Your task to perform on an android device: Open Google Maps and go to "Timeline" Image 0: 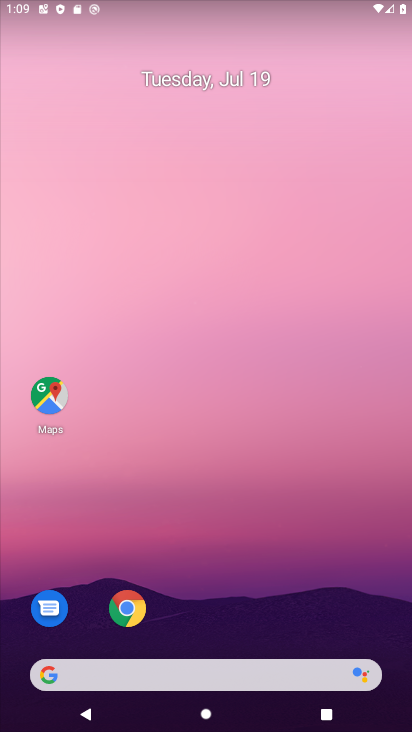
Step 0: click (44, 392)
Your task to perform on an android device: Open Google Maps and go to "Timeline" Image 1: 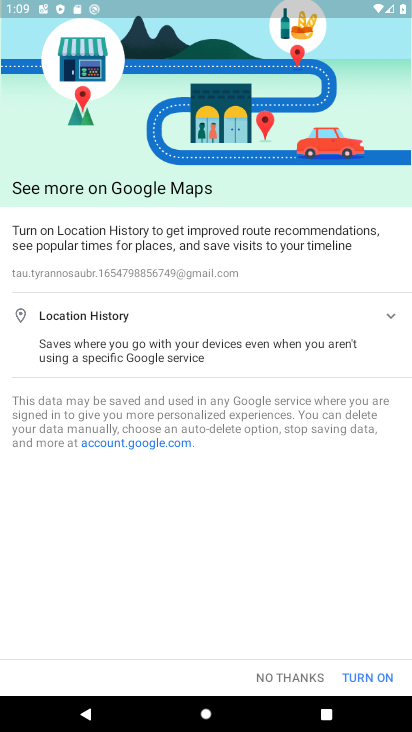
Step 1: click (293, 675)
Your task to perform on an android device: Open Google Maps and go to "Timeline" Image 2: 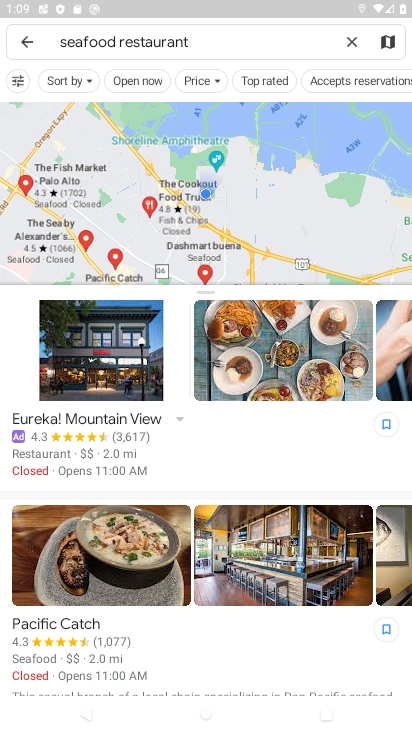
Step 2: press back button
Your task to perform on an android device: Open Google Maps and go to "Timeline" Image 3: 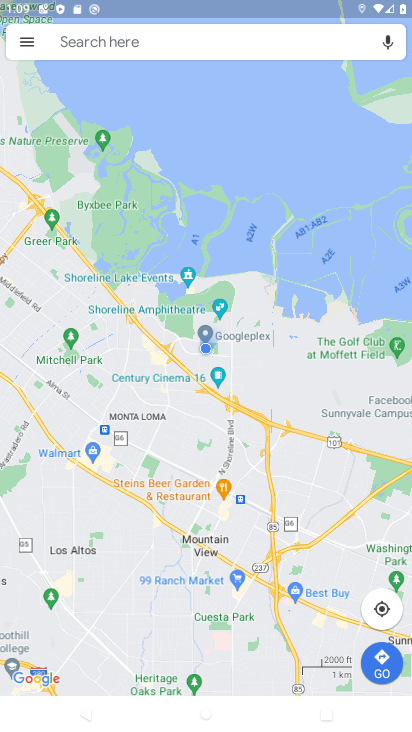
Step 3: click (33, 45)
Your task to perform on an android device: Open Google Maps and go to "Timeline" Image 4: 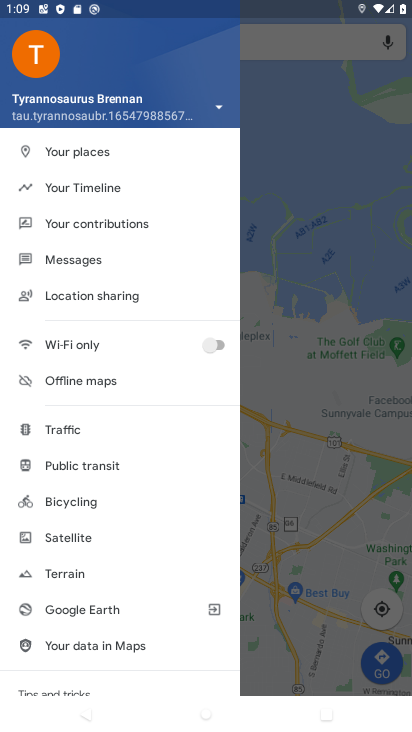
Step 4: click (75, 192)
Your task to perform on an android device: Open Google Maps and go to "Timeline" Image 5: 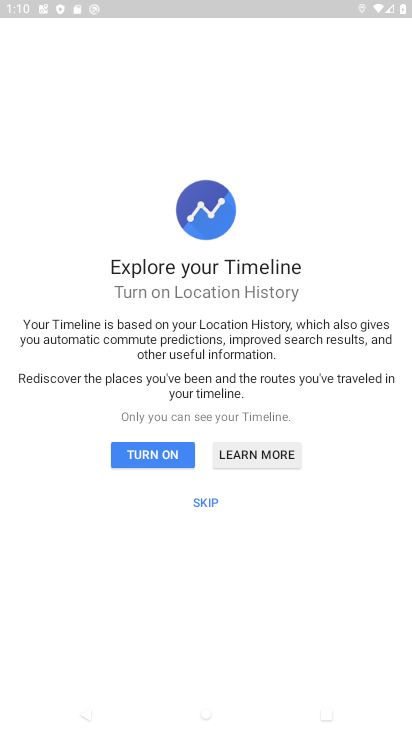
Step 5: click (159, 462)
Your task to perform on an android device: Open Google Maps and go to "Timeline" Image 6: 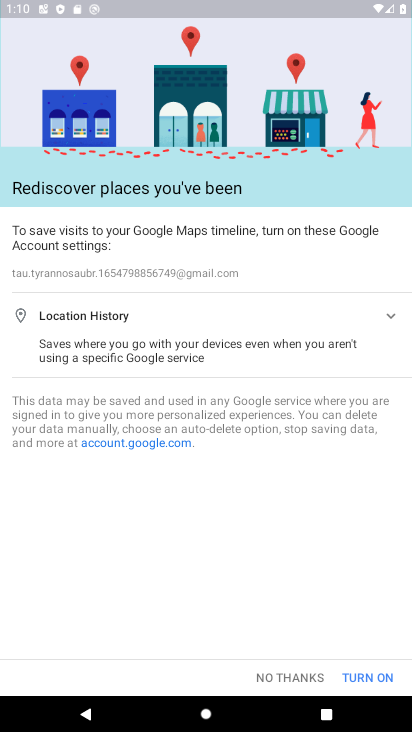
Step 6: task complete